Your task to perform on an android device: open a bookmark in the chrome app Image 0: 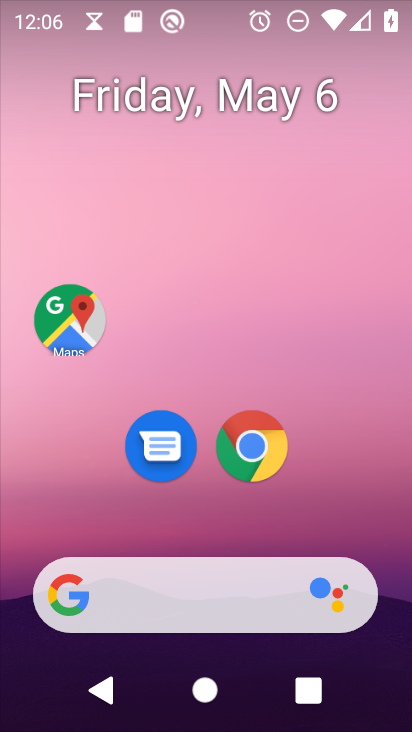
Step 0: drag from (242, 648) to (231, 218)
Your task to perform on an android device: open a bookmark in the chrome app Image 1: 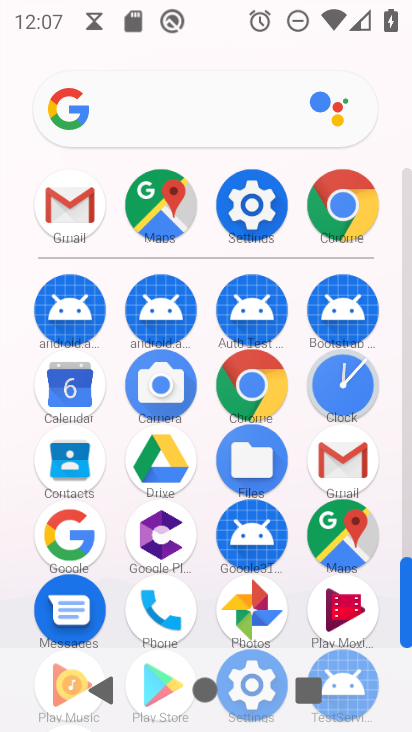
Step 1: click (352, 214)
Your task to perform on an android device: open a bookmark in the chrome app Image 2: 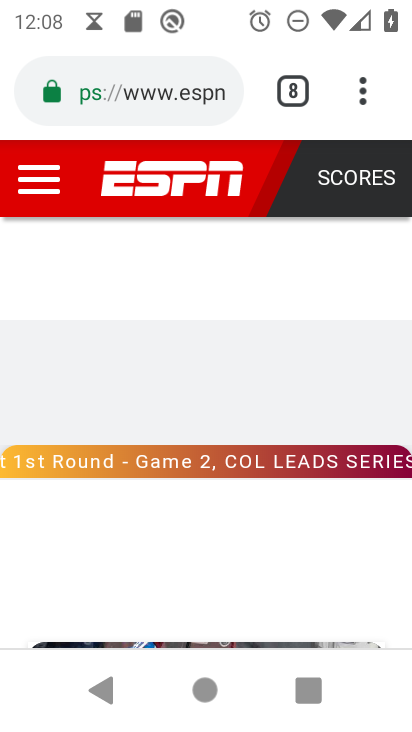
Step 2: click (360, 112)
Your task to perform on an android device: open a bookmark in the chrome app Image 3: 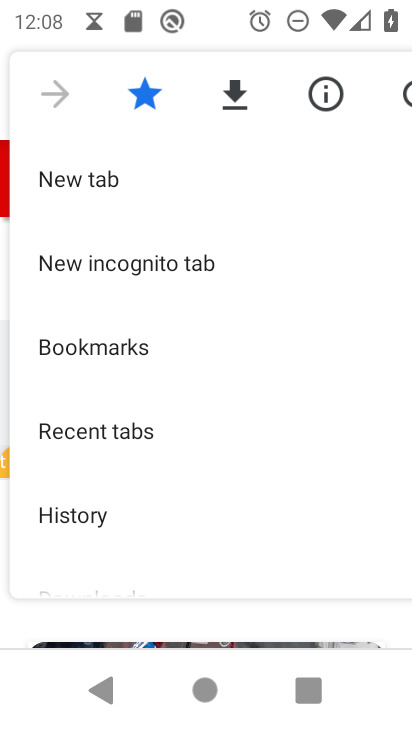
Step 3: click (166, 354)
Your task to perform on an android device: open a bookmark in the chrome app Image 4: 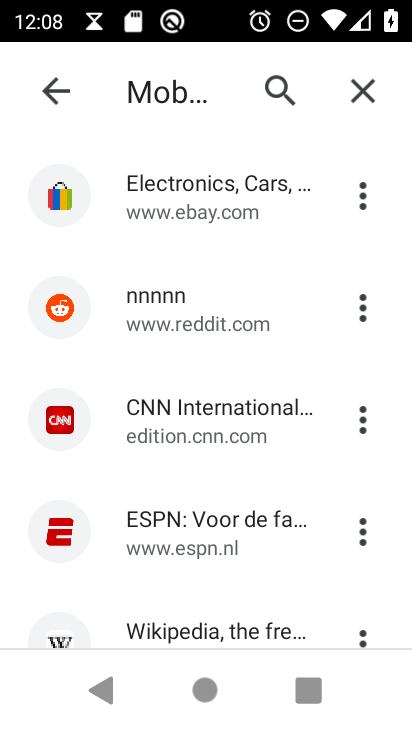
Step 4: click (141, 429)
Your task to perform on an android device: open a bookmark in the chrome app Image 5: 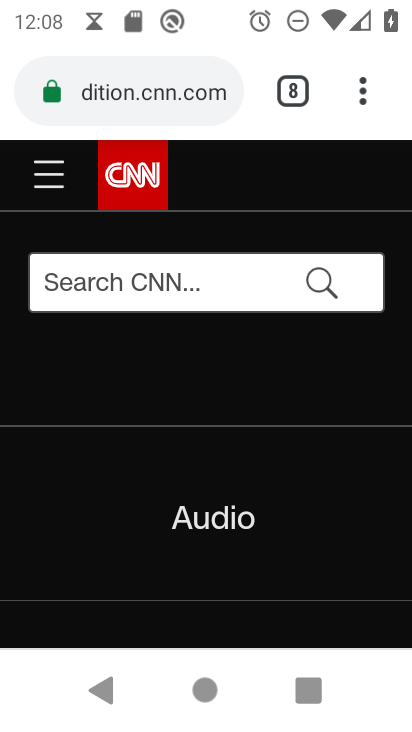
Step 5: task complete